Your task to perform on an android device: Open notification settings Image 0: 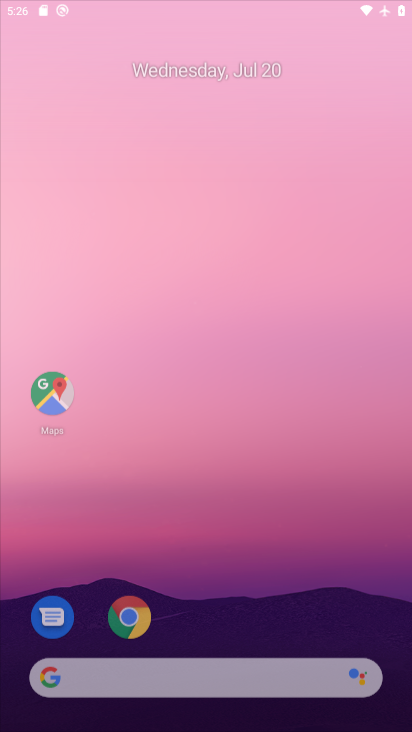
Step 0: press home button
Your task to perform on an android device: Open notification settings Image 1: 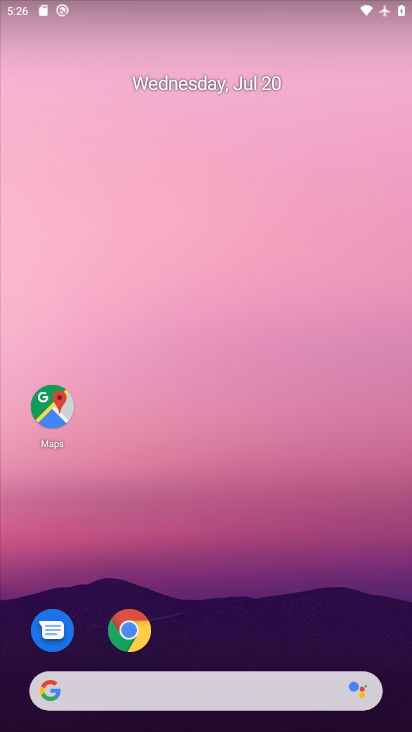
Step 1: drag from (247, 639) to (275, 1)
Your task to perform on an android device: Open notification settings Image 2: 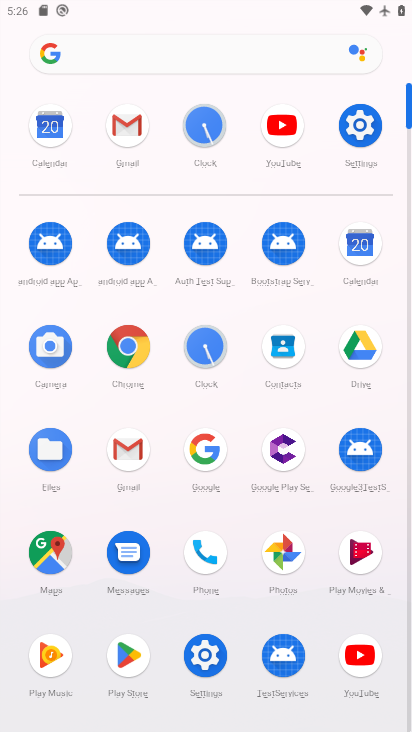
Step 2: click (362, 125)
Your task to perform on an android device: Open notification settings Image 3: 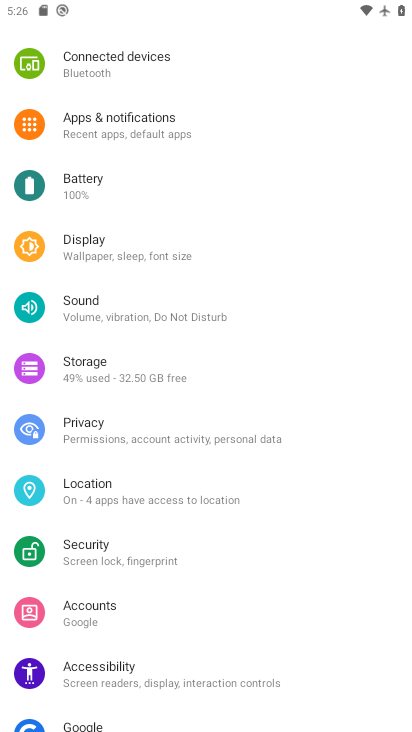
Step 3: click (126, 126)
Your task to perform on an android device: Open notification settings Image 4: 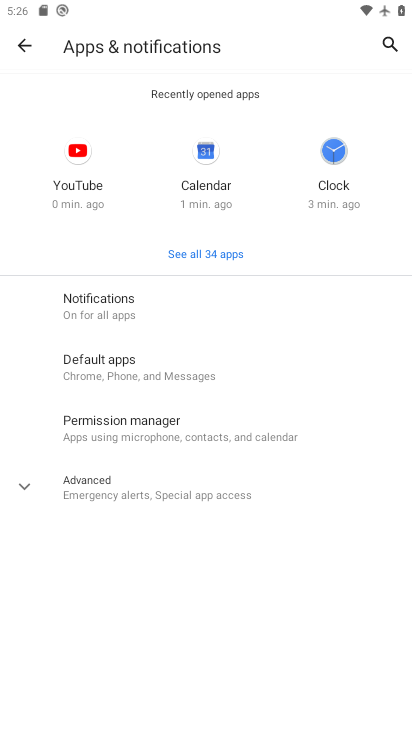
Step 4: click (71, 322)
Your task to perform on an android device: Open notification settings Image 5: 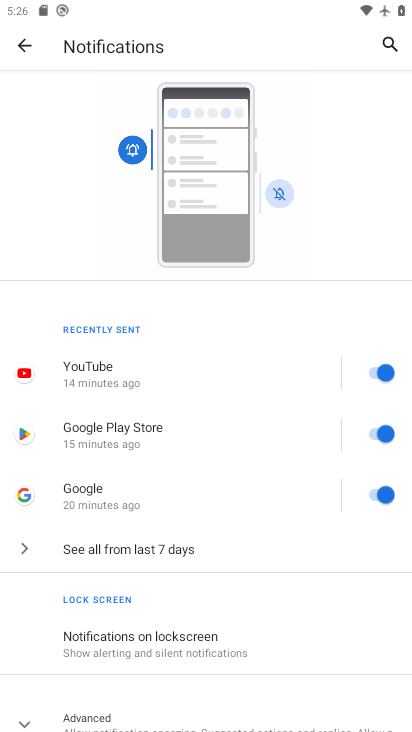
Step 5: task complete